Your task to perform on an android device: See recent photos Image 0: 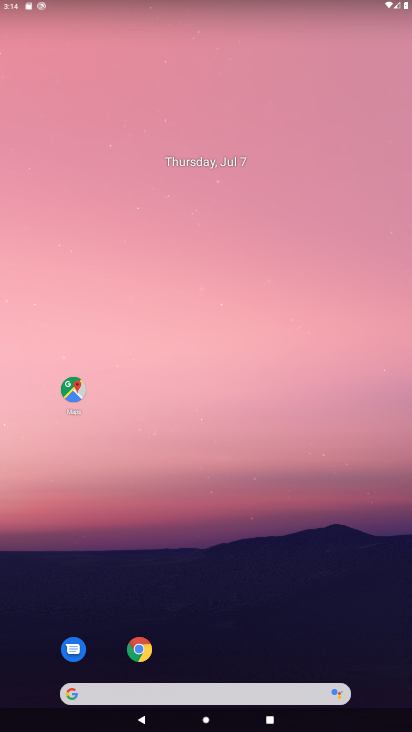
Step 0: drag from (220, 640) to (258, 6)
Your task to perform on an android device: See recent photos Image 1: 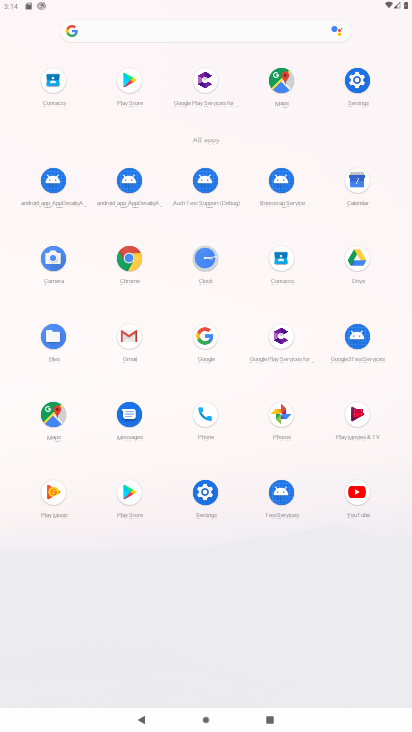
Step 1: click (281, 415)
Your task to perform on an android device: See recent photos Image 2: 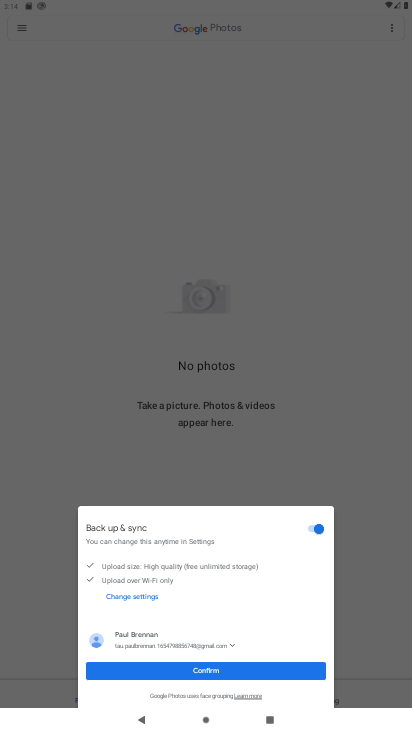
Step 2: click (189, 670)
Your task to perform on an android device: See recent photos Image 3: 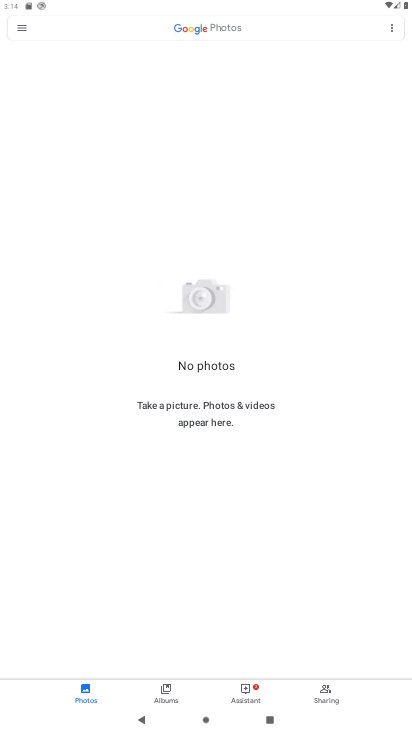
Step 3: task complete